Your task to perform on an android device: Go to CNN.com Image 0: 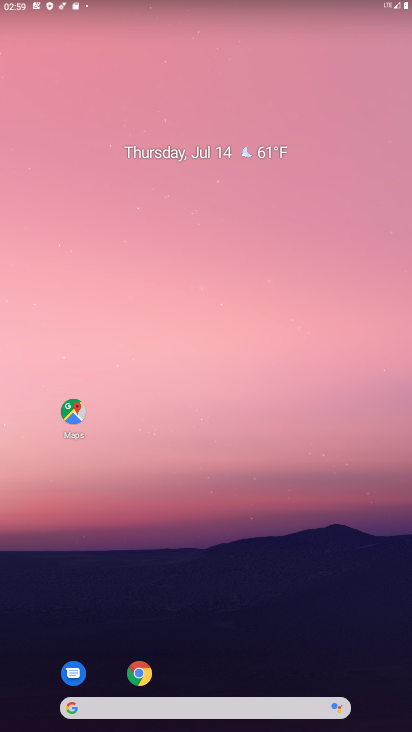
Step 0: click (133, 671)
Your task to perform on an android device: Go to CNN.com Image 1: 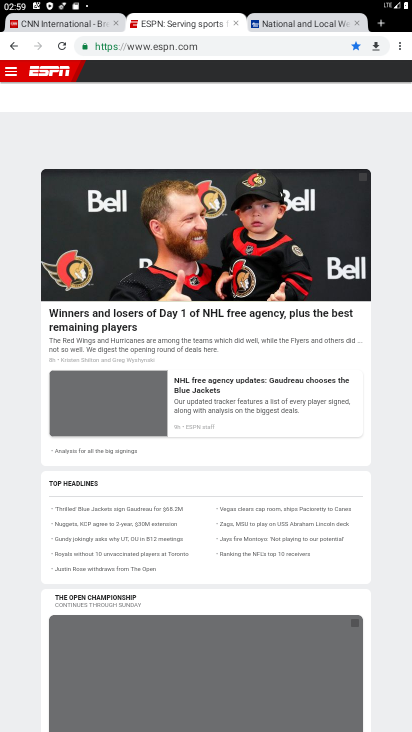
Step 1: click (67, 26)
Your task to perform on an android device: Go to CNN.com Image 2: 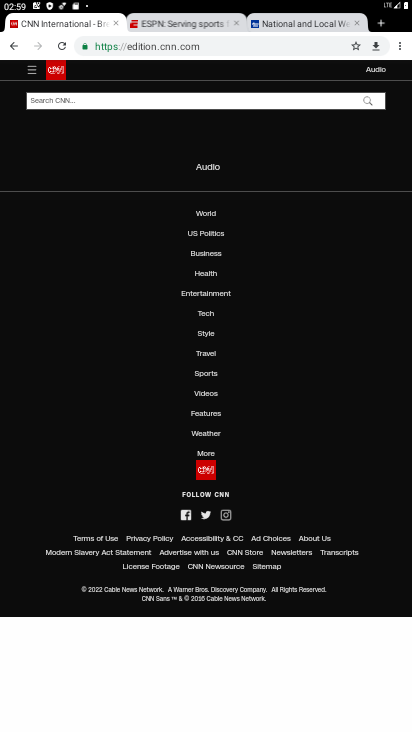
Step 2: task complete